Your task to perform on an android device: turn pop-ups off in chrome Image 0: 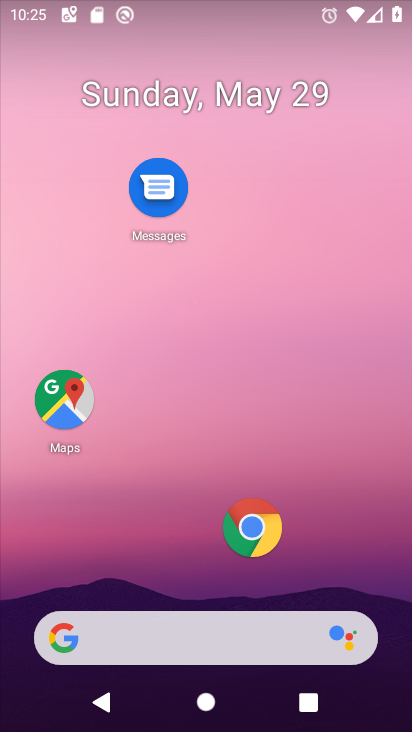
Step 0: click (251, 523)
Your task to perform on an android device: turn pop-ups off in chrome Image 1: 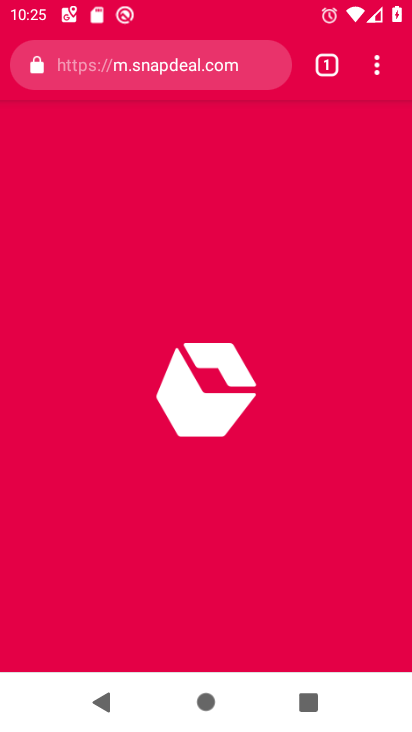
Step 1: click (376, 66)
Your task to perform on an android device: turn pop-ups off in chrome Image 2: 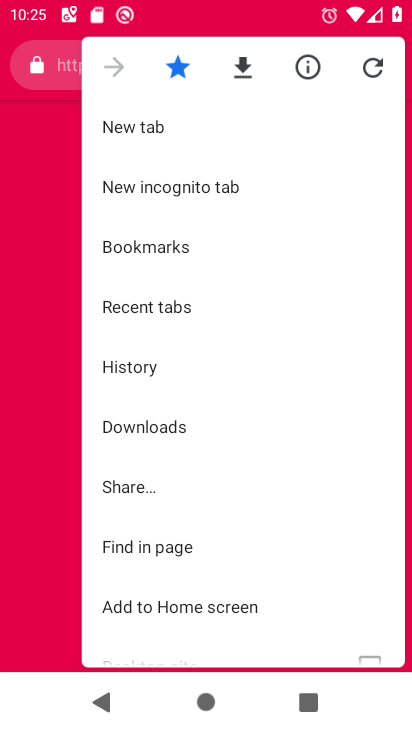
Step 2: drag from (247, 537) to (218, 122)
Your task to perform on an android device: turn pop-ups off in chrome Image 3: 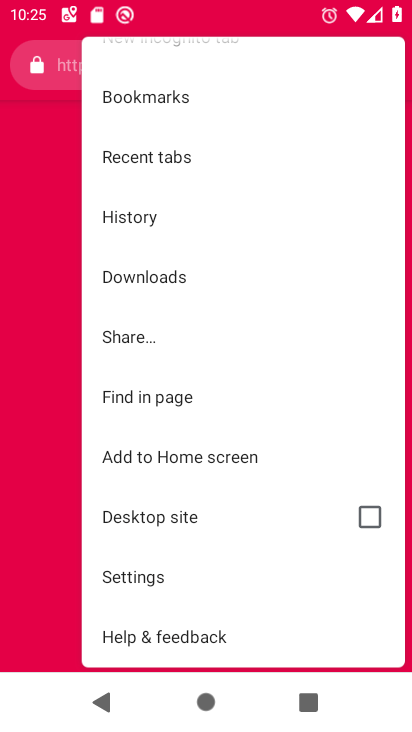
Step 3: click (173, 568)
Your task to perform on an android device: turn pop-ups off in chrome Image 4: 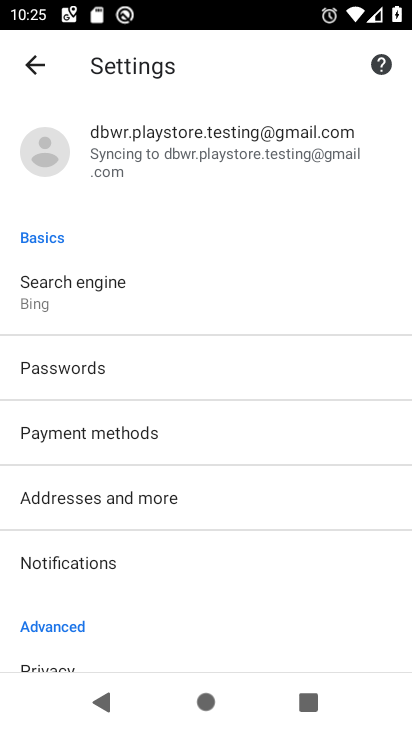
Step 4: drag from (209, 633) to (209, 134)
Your task to perform on an android device: turn pop-ups off in chrome Image 5: 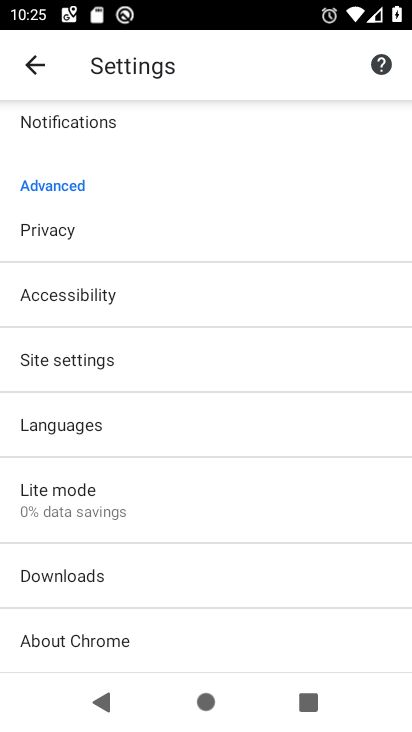
Step 5: click (168, 358)
Your task to perform on an android device: turn pop-ups off in chrome Image 6: 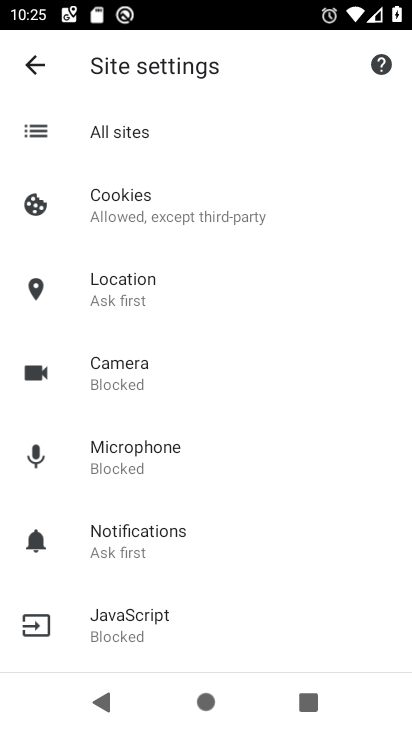
Step 6: drag from (248, 313) to (248, 134)
Your task to perform on an android device: turn pop-ups off in chrome Image 7: 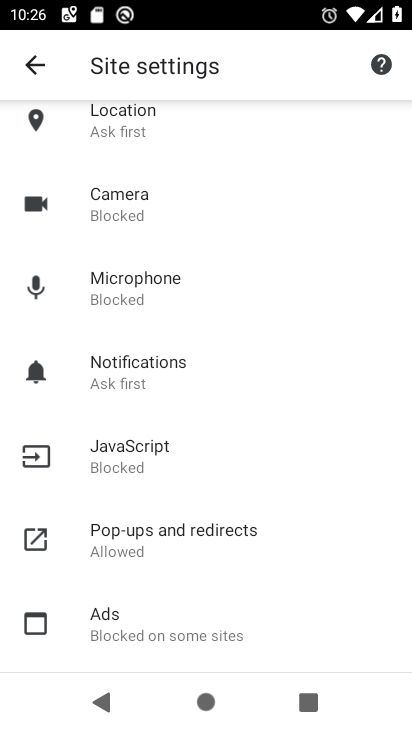
Step 7: click (168, 540)
Your task to perform on an android device: turn pop-ups off in chrome Image 8: 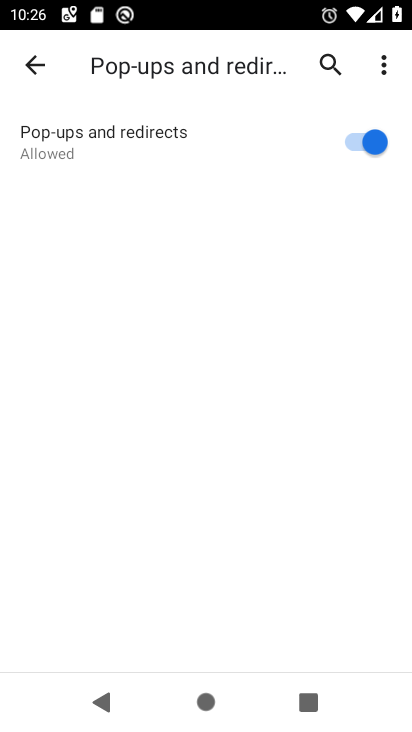
Step 8: click (361, 136)
Your task to perform on an android device: turn pop-ups off in chrome Image 9: 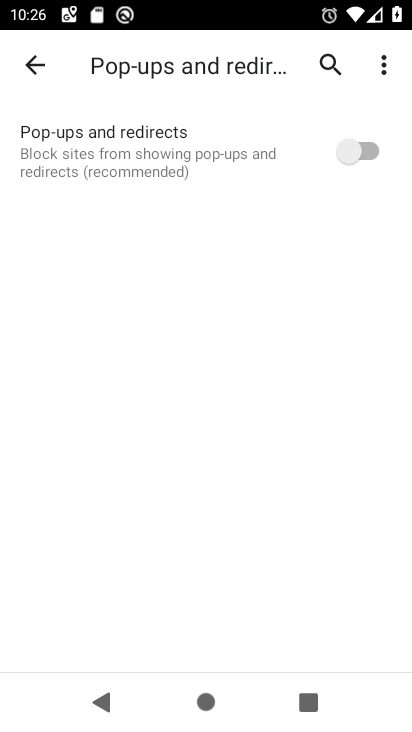
Step 9: task complete